Your task to perform on an android device: set default search engine in the chrome app Image 0: 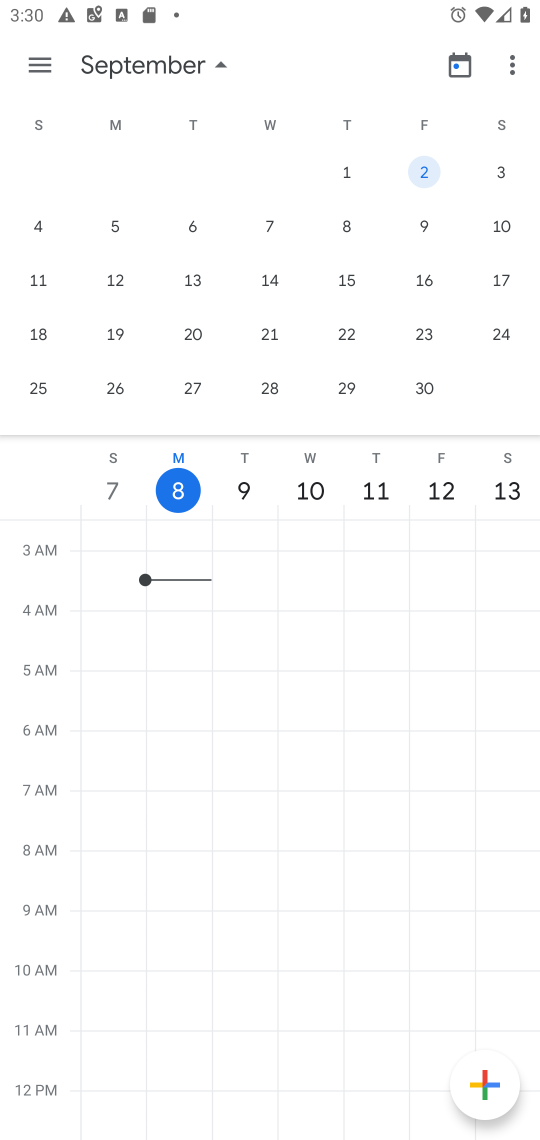
Step 0: press home button
Your task to perform on an android device: set default search engine in the chrome app Image 1: 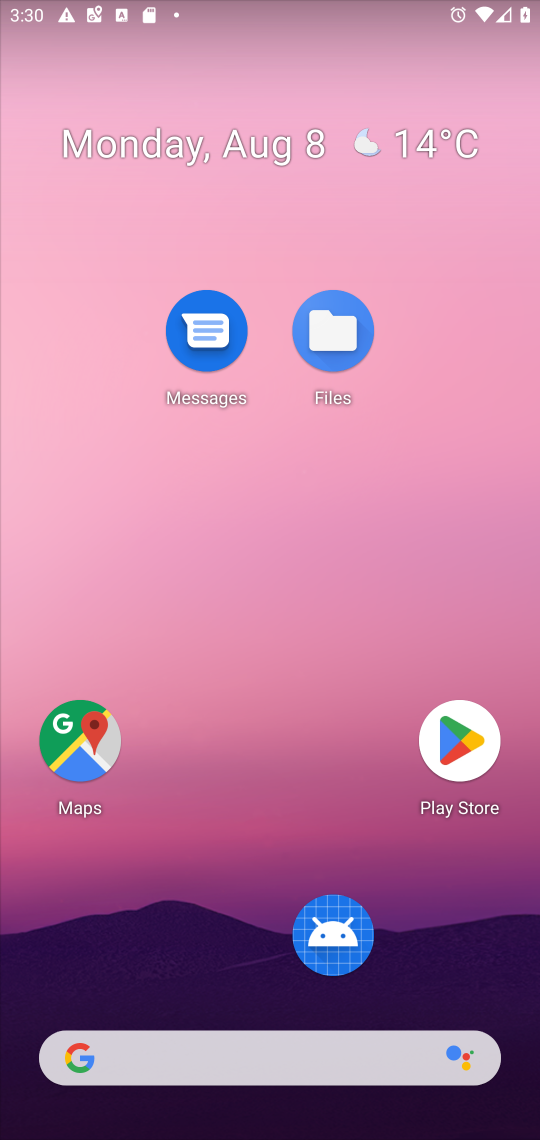
Step 1: drag from (258, 1063) to (244, 169)
Your task to perform on an android device: set default search engine in the chrome app Image 2: 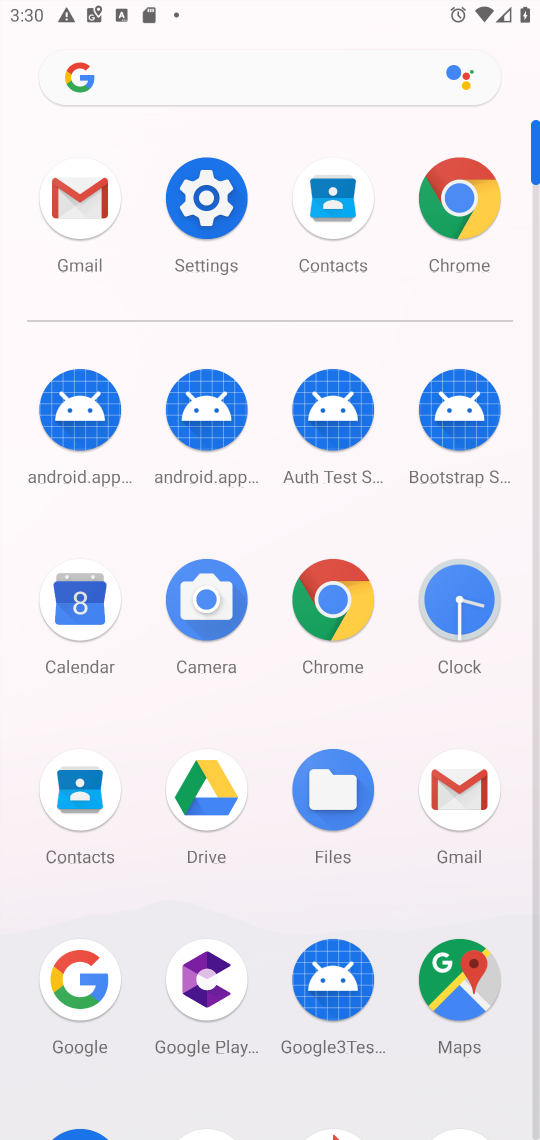
Step 2: click (340, 582)
Your task to perform on an android device: set default search engine in the chrome app Image 3: 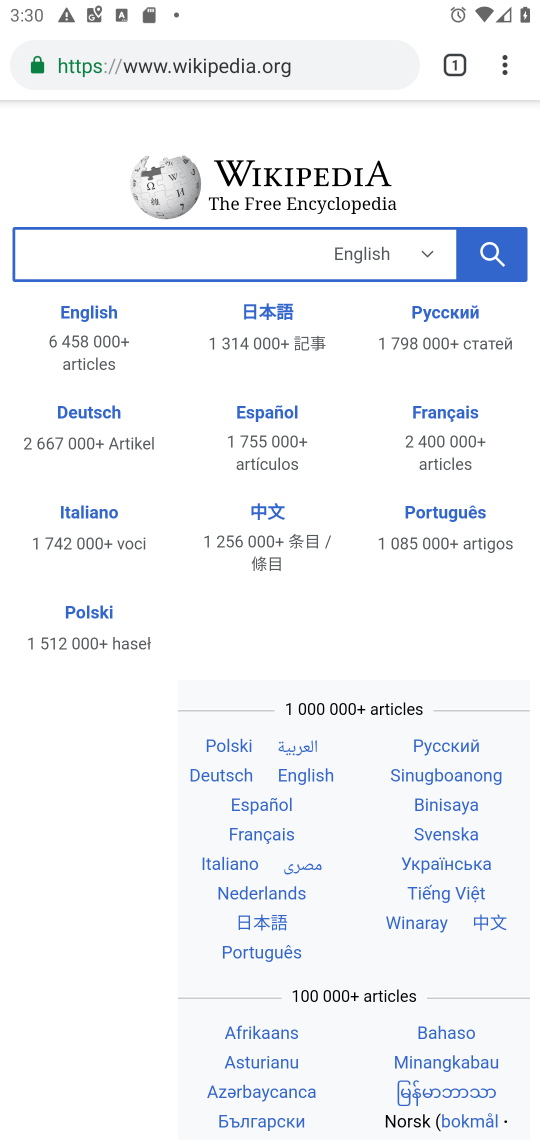
Step 3: click (504, 58)
Your task to perform on an android device: set default search engine in the chrome app Image 4: 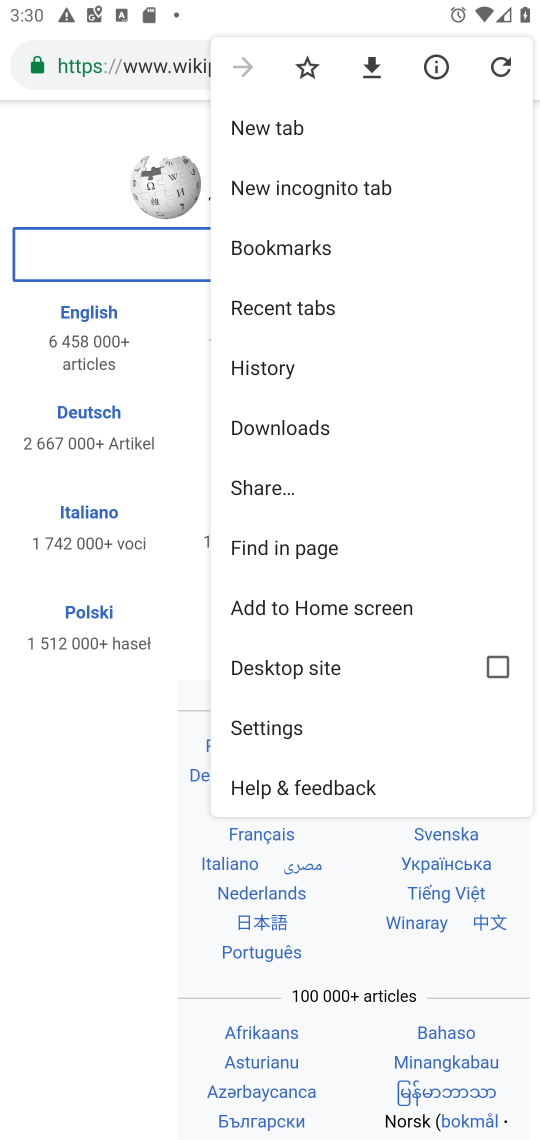
Step 4: click (293, 723)
Your task to perform on an android device: set default search engine in the chrome app Image 5: 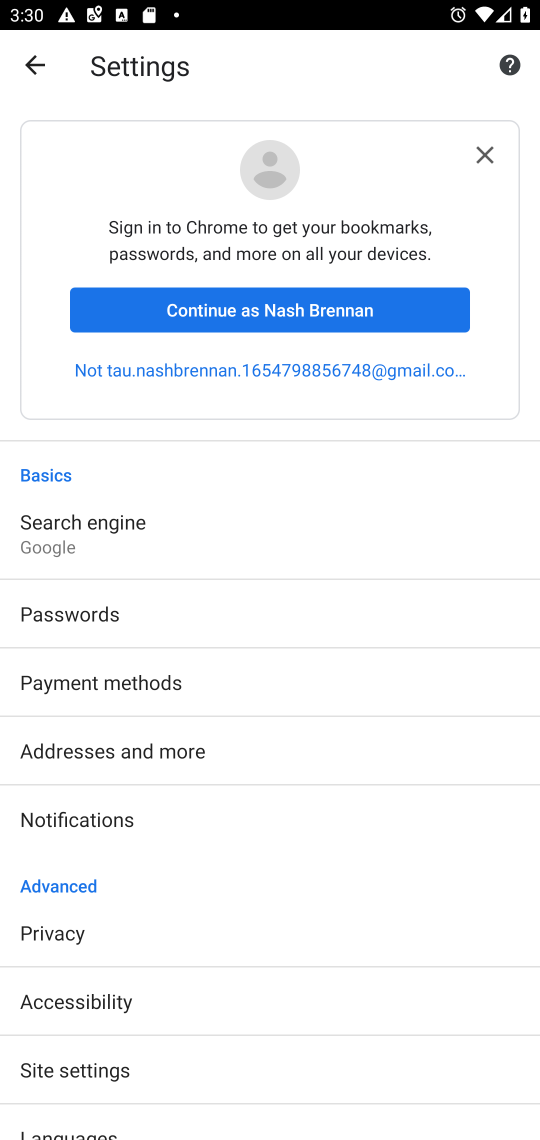
Step 5: click (140, 554)
Your task to perform on an android device: set default search engine in the chrome app Image 6: 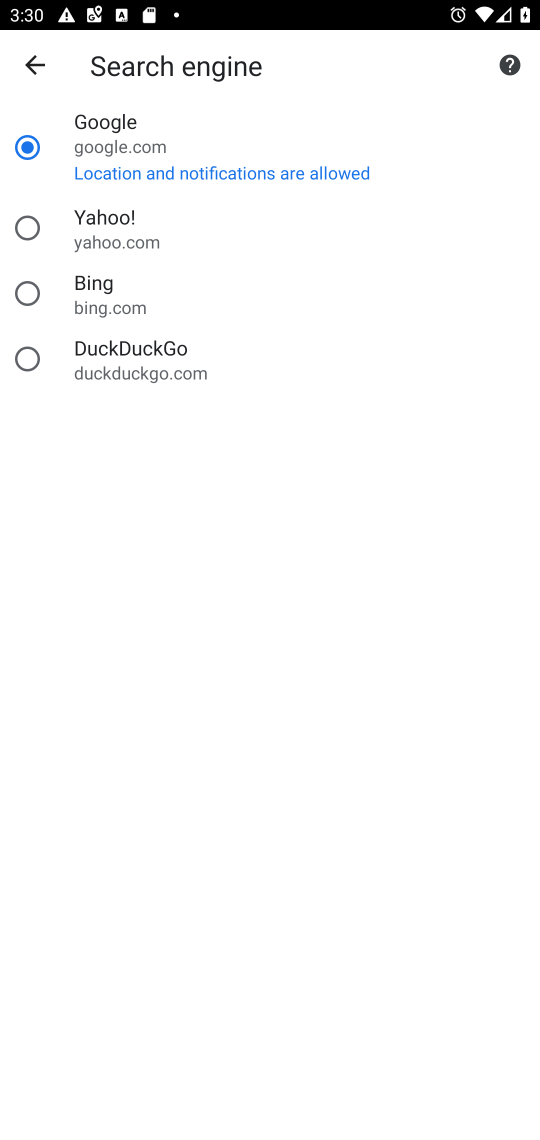
Step 6: task complete